Your task to perform on an android device: Open display settings Image 0: 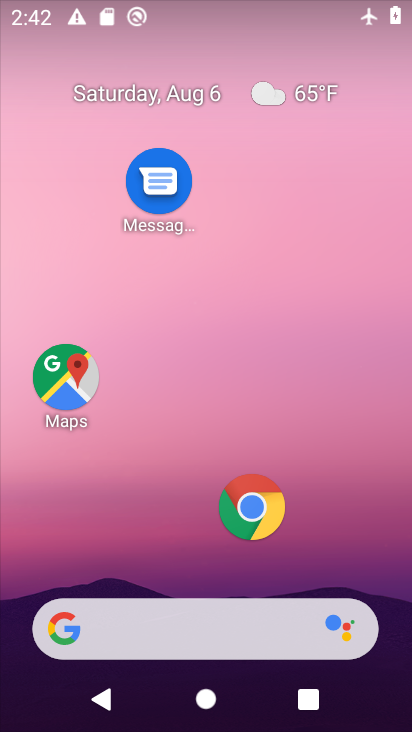
Step 0: drag from (185, 563) to (202, 260)
Your task to perform on an android device: Open display settings Image 1: 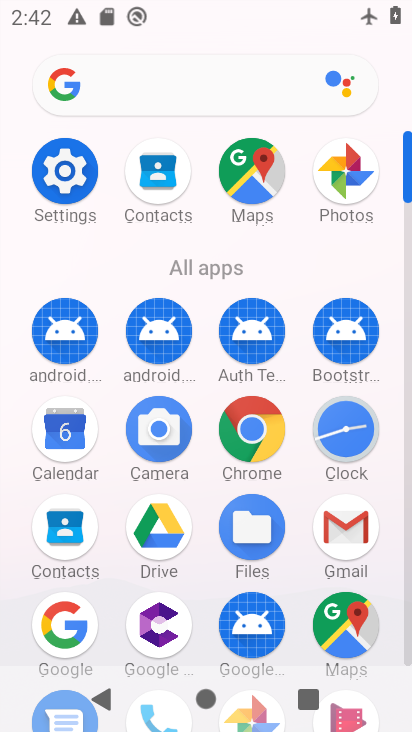
Step 1: click (77, 193)
Your task to perform on an android device: Open display settings Image 2: 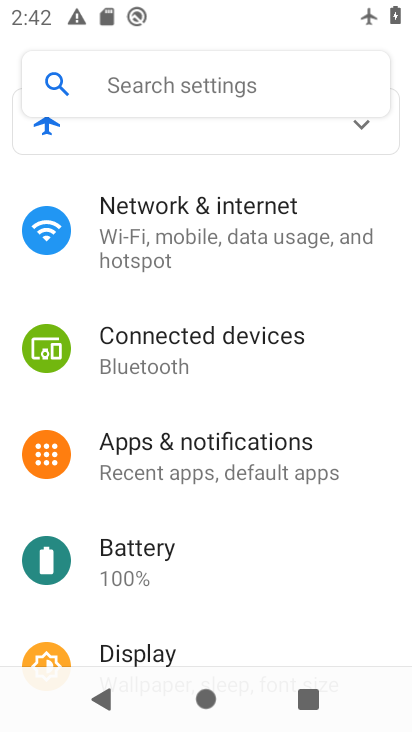
Step 2: click (128, 641)
Your task to perform on an android device: Open display settings Image 3: 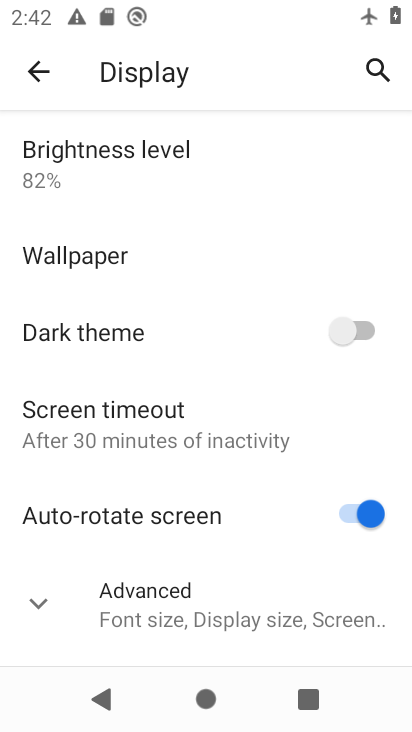
Step 3: task complete